Your task to perform on an android device: toggle improve location accuracy Image 0: 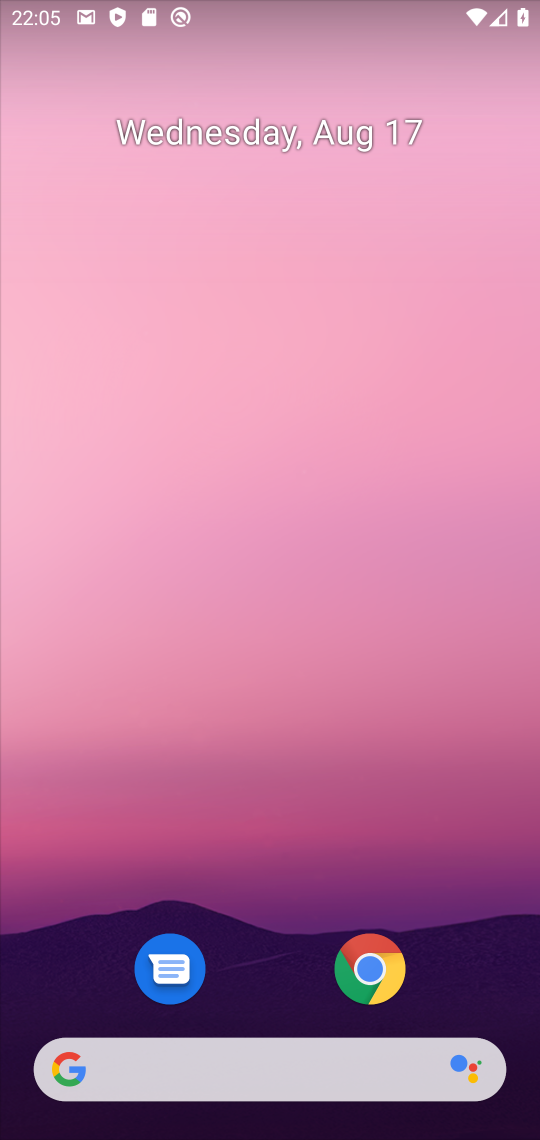
Step 0: drag from (276, 974) to (201, 463)
Your task to perform on an android device: toggle improve location accuracy Image 1: 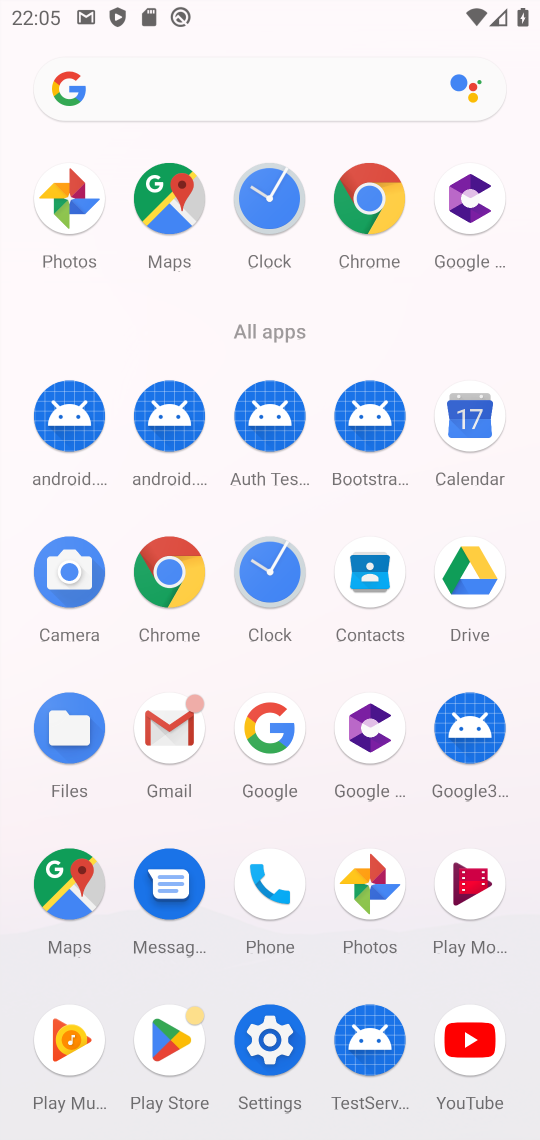
Step 1: click (268, 1035)
Your task to perform on an android device: toggle improve location accuracy Image 2: 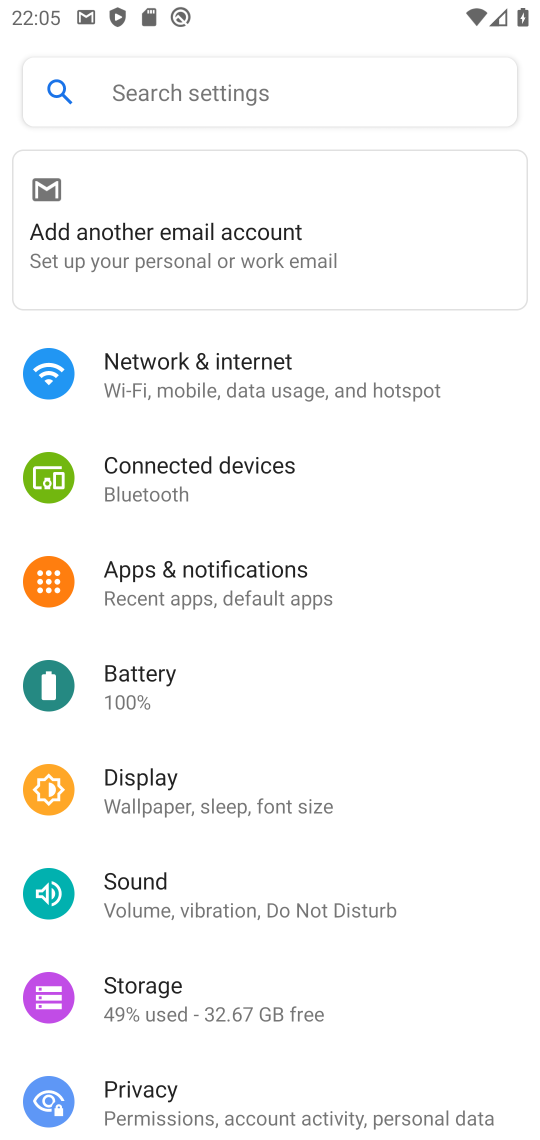
Step 2: drag from (262, 974) to (251, 594)
Your task to perform on an android device: toggle improve location accuracy Image 3: 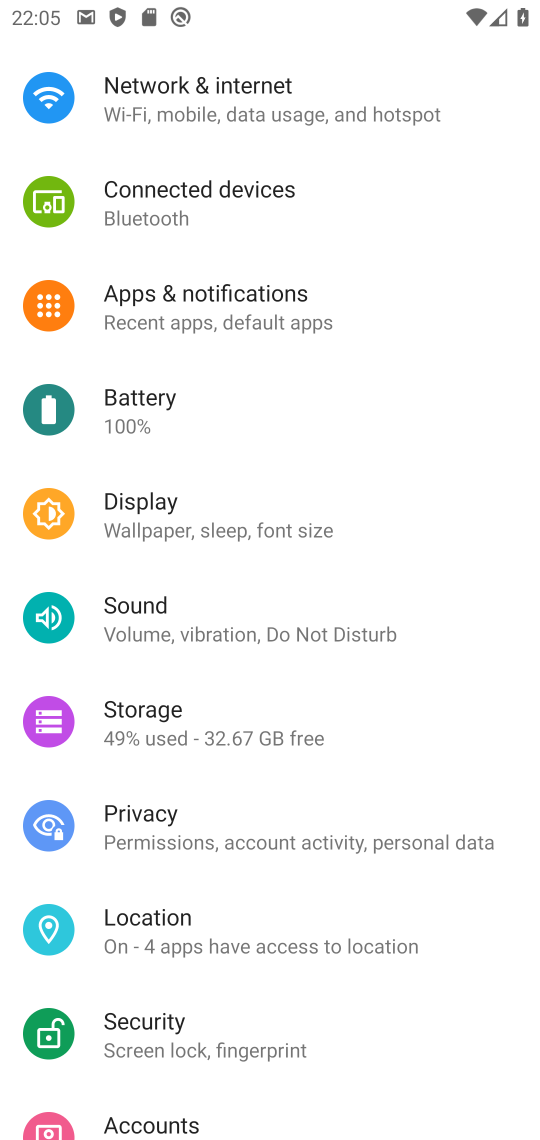
Step 3: click (164, 908)
Your task to perform on an android device: toggle improve location accuracy Image 4: 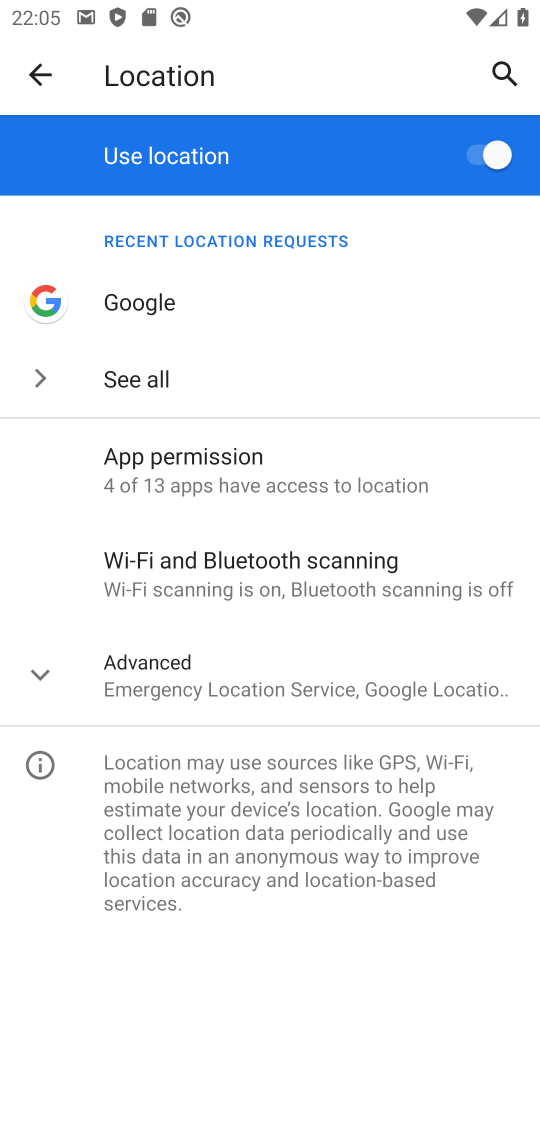
Step 4: click (61, 680)
Your task to perform on an android device: toggle improve location accuracy Image 5: 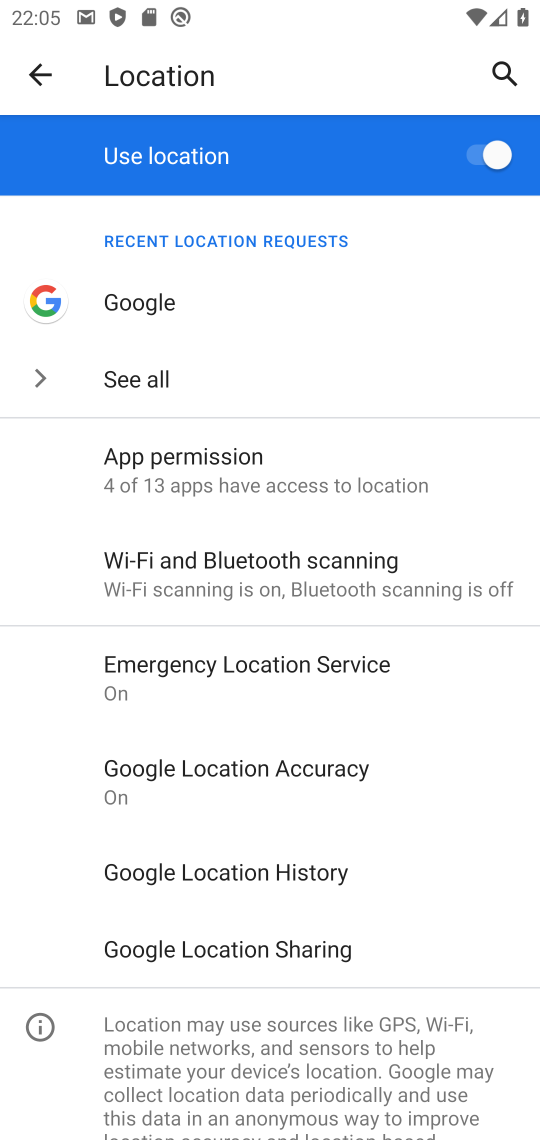
Step 5: click (209, 762)
Your task to perform on an android device: toggle improve location accuracy Image 6: 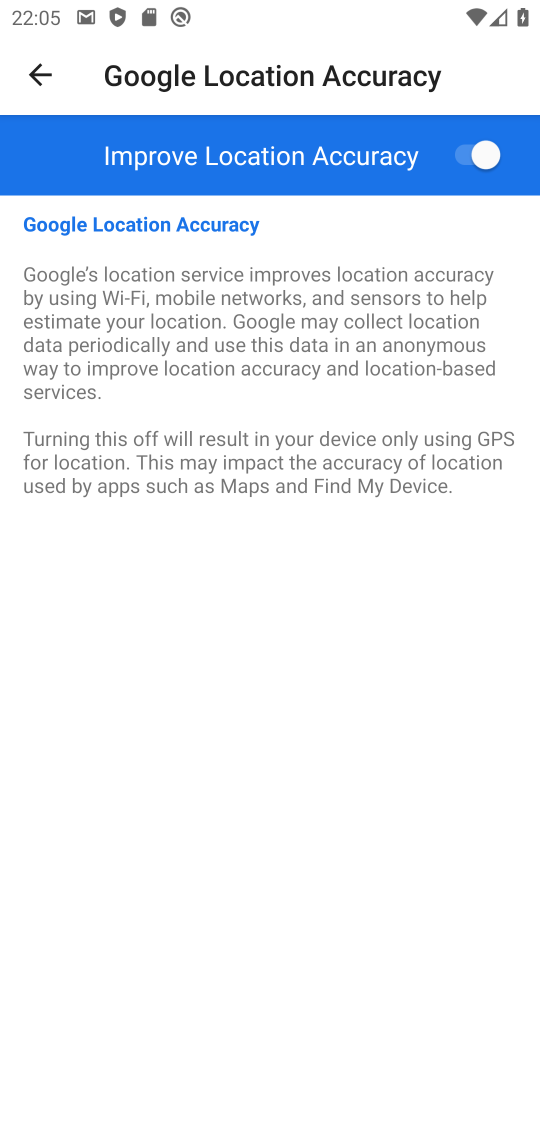
Step 6: click (475, 161)
Your task to perform on an android device: toggle improve location accuracy Image 7: 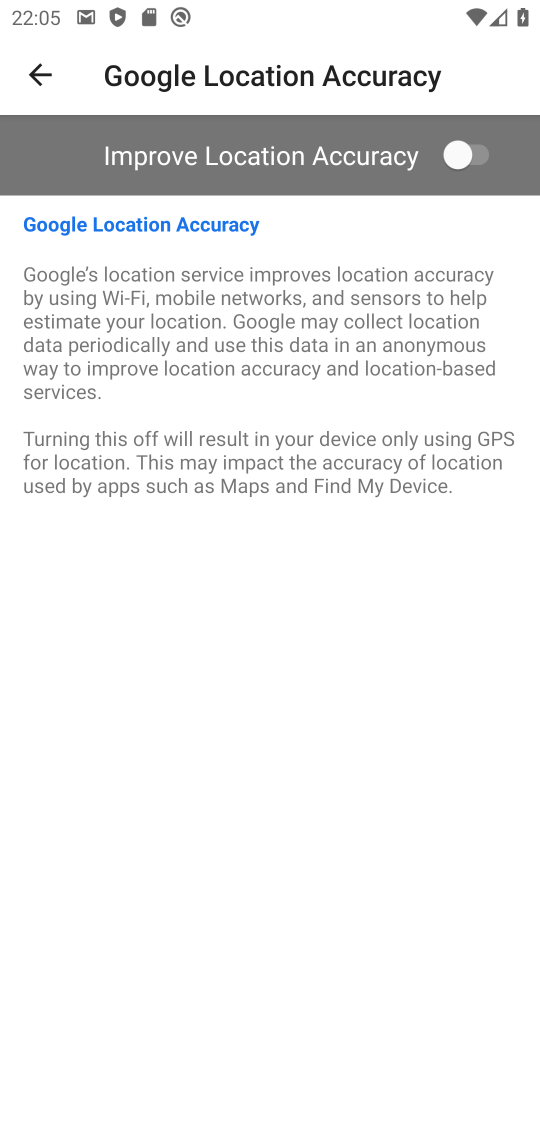
Step 7: task complete